Your task to perform on an android device: Go to CNN.com Image 0: 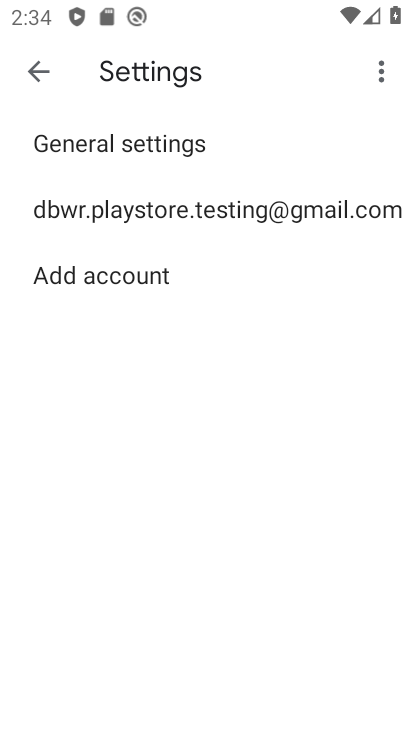
Step 0: press home button
Your task to perform on an android device: Go to CNN.com Image 1: 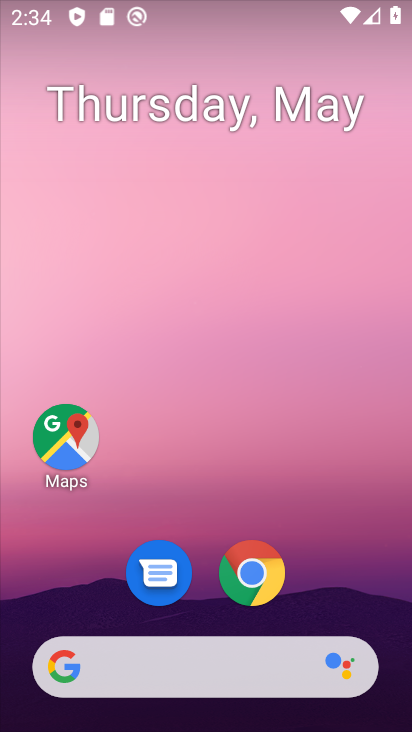
Step 1: click (254, 570)
Your task to perform on an android device: Go to CNN.com Image 2: 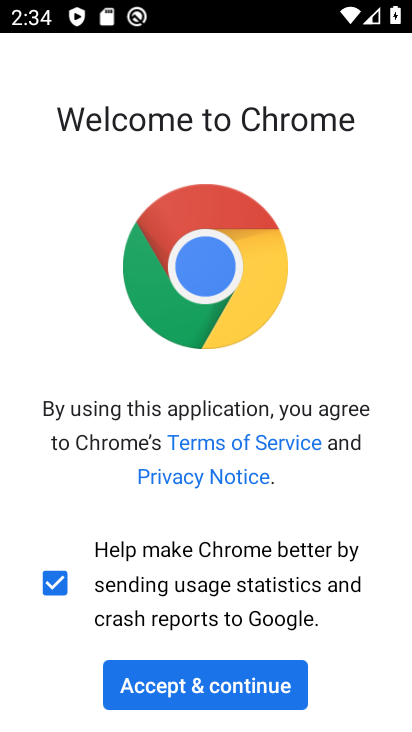
Step 2: click (239, 688)
Your task to perform on an android device: Go to CNN.com Image 3: 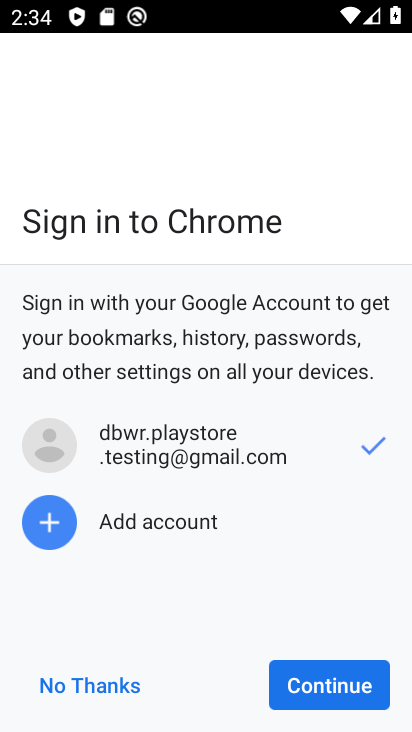
Step 3: click (298, 688)
Your task to perform on an android device: Go to CNN.com Image 4: 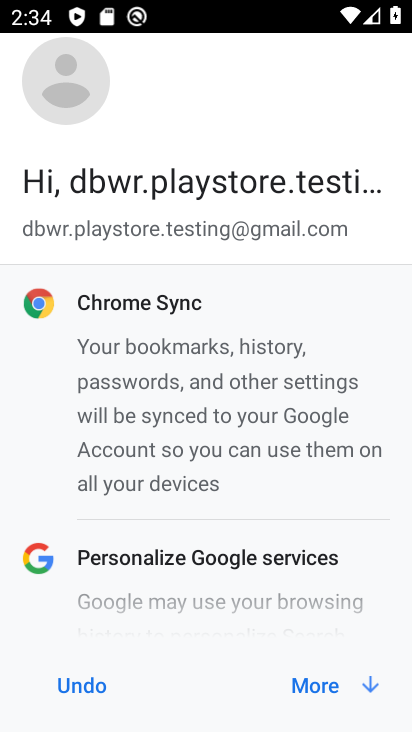
Step 4: click (324, 685)
Your task to perform on an android device: Go to CNN.com Image 5: 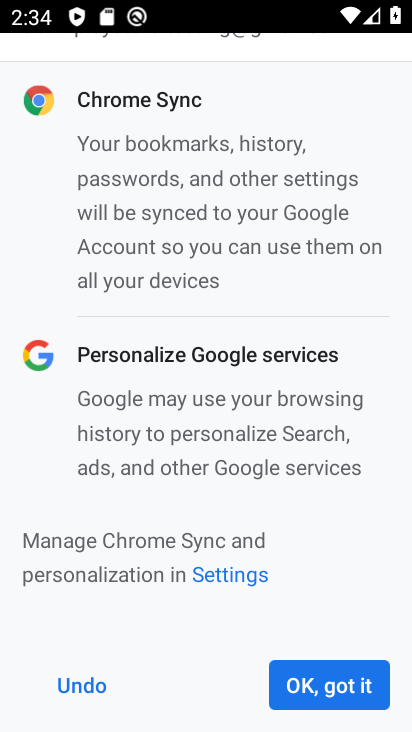
Step 5: click (335, 675)
Your task to perform on an android device: Go to CNN.com Image 6: 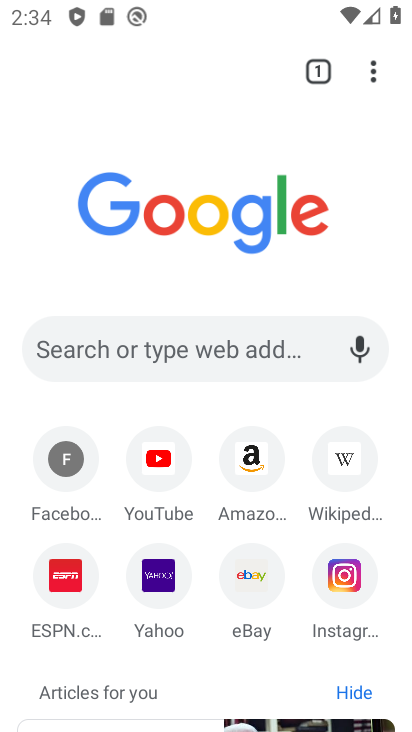
Step 6: click (185, 351)
Your task to perform on an android device: Go to CNN.com Image 7: 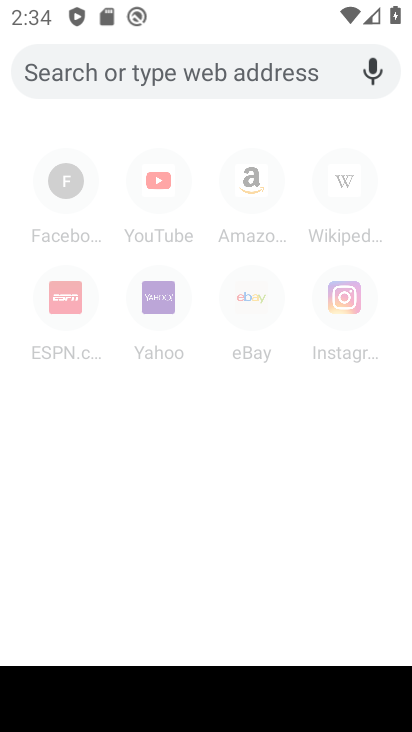
Step 7: type "cnn.com"
Your task to perform on an android device: Go to CNN.com Image 8: 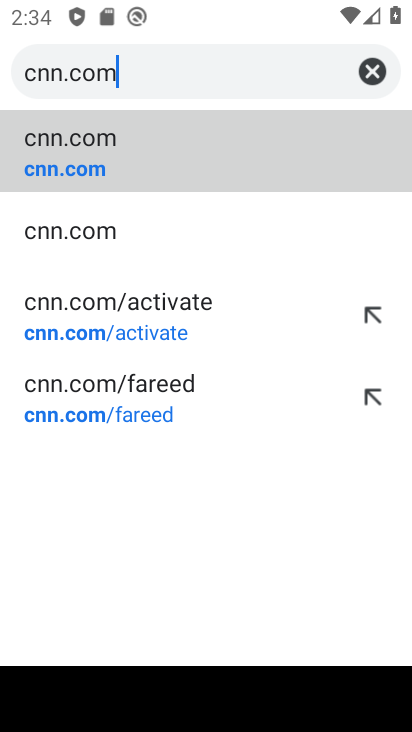
Step 8: click (91, 136)
Your task to perform on an android device: Go to CNN.com Image 9: 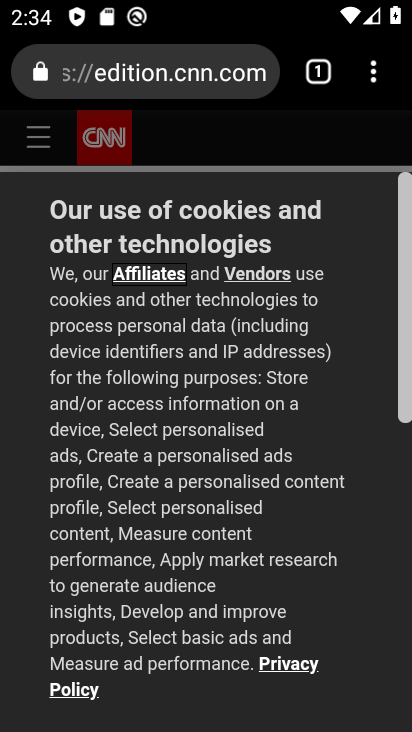
Step 9: task complete